Your task to perform on an android device: What is the recent news? Image 0: 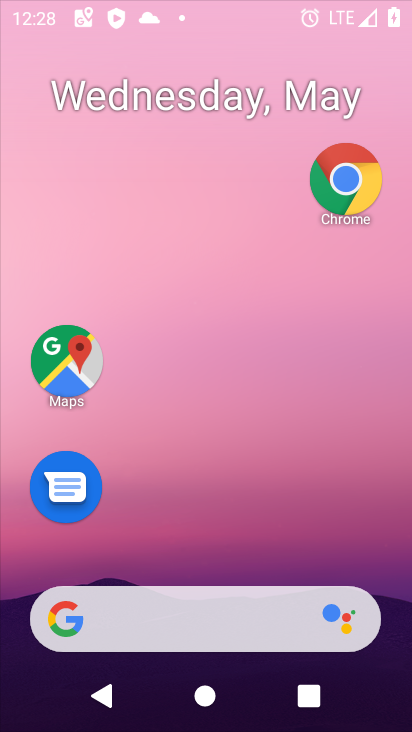
Step 0: click (299, 213)
Your task to perform on an android device: What is the recent news? Image 1: 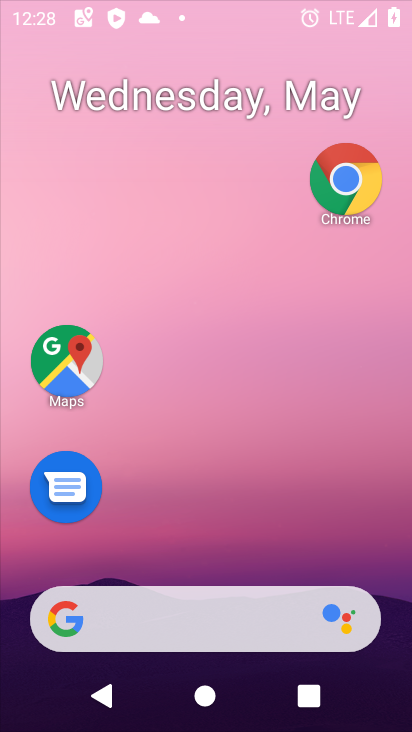
Step 1: drag from (158, 496) to (224, 119)
Your task to perform on an android device: What is the recent news? Image 2: 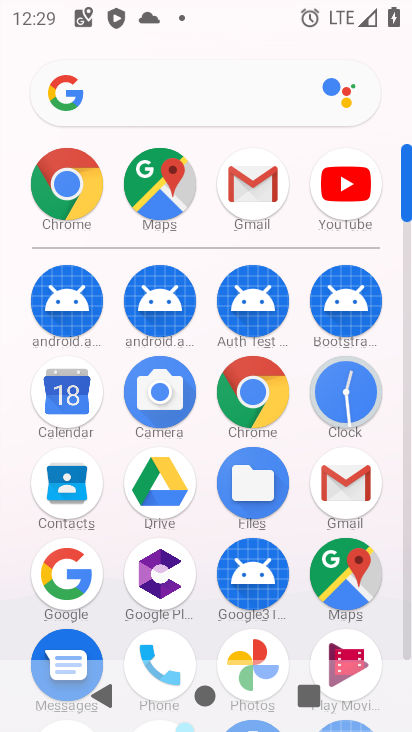
Step 2: click (179, 102)
Your task to perform on an android device: What is the recent news? Image 3: 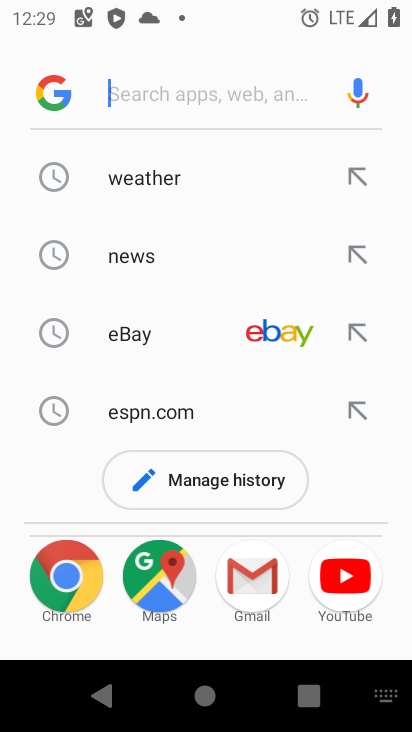
Step 3: type "recent news"
Your task to perform on an android device: What is the recent news? Image 4: 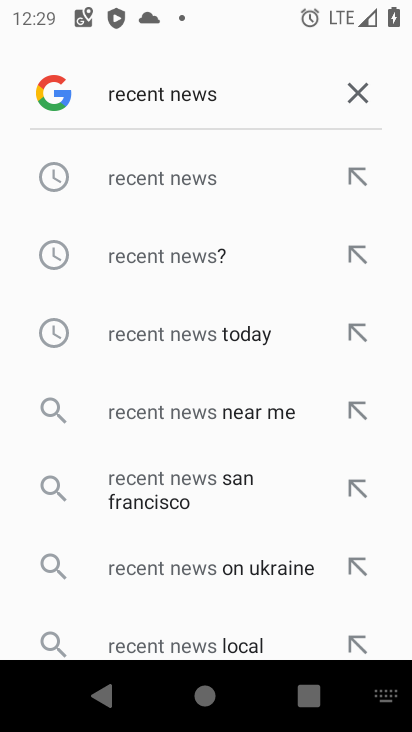
Step 4: click (160, 154)
Your task to perform on an android device: What is the recent news? Image 5: 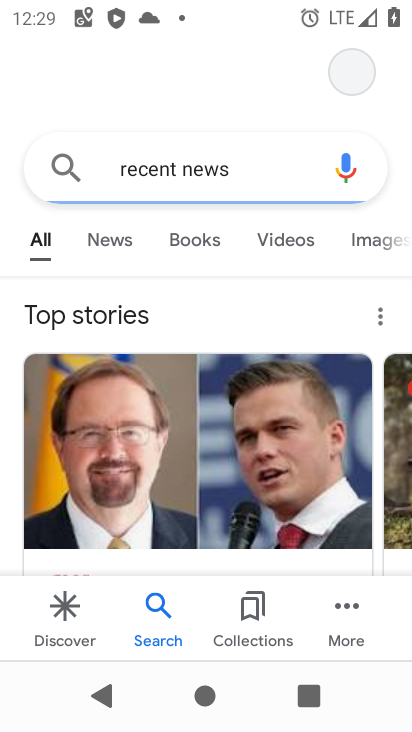
Step 5: task complete